Your task to perform on an android device: Turn off the flashlight Image 0: 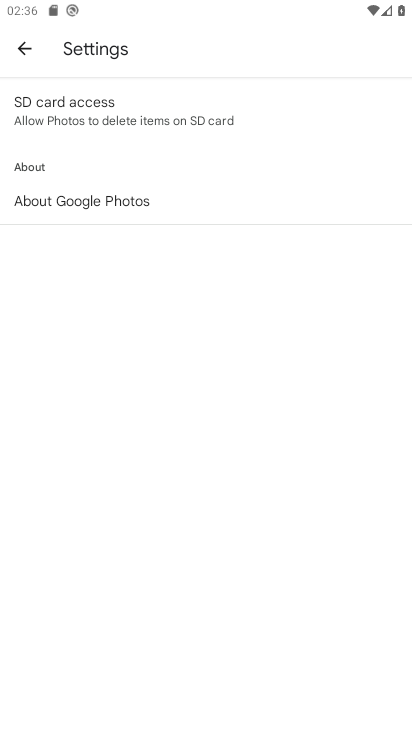
Step 0: press home button
Your task to perform on an android device: Turn off the flashlight Image 1: 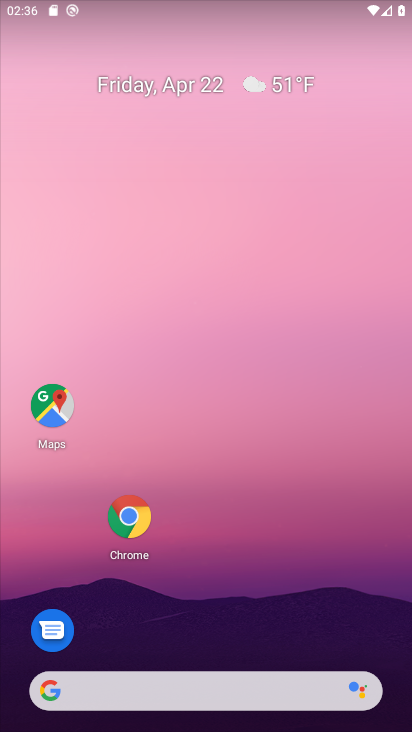
Step 1: drag from (382, 615) to (376, 132)
Your task to perform on an android device: Turn off the flashlight Image 2: 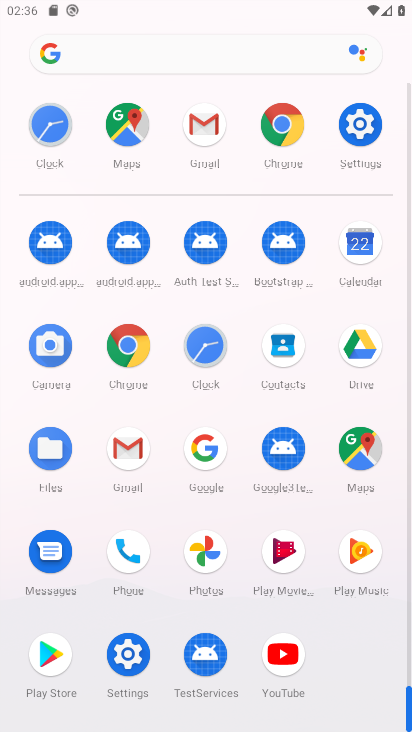
Step 2: click (362, 113)
Your task to perform on an android device: Turn off the flashlight Image 3: 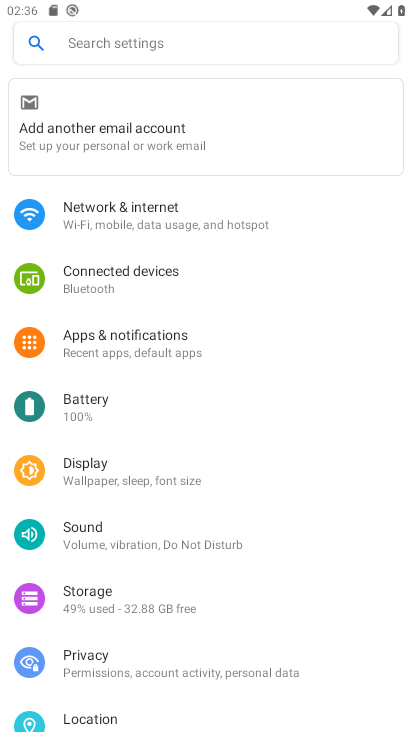
Step 3: click (66, 469)
Your task to perform on an android device: Turn off the flashlight Image 4: 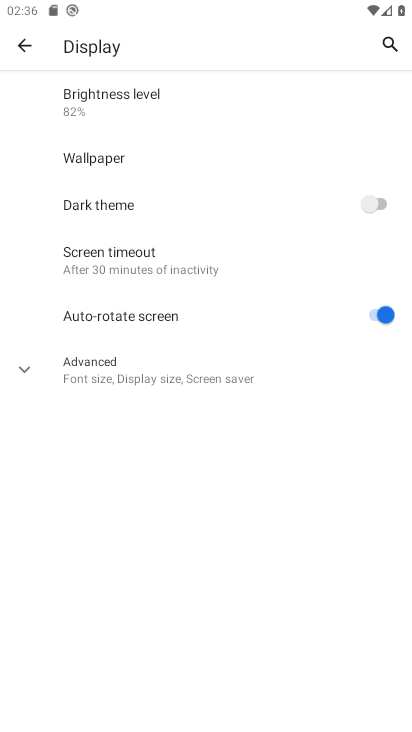
Step 4: task complete